Your task to perform on an android device: toggle pop-ups in chrome Image 0: 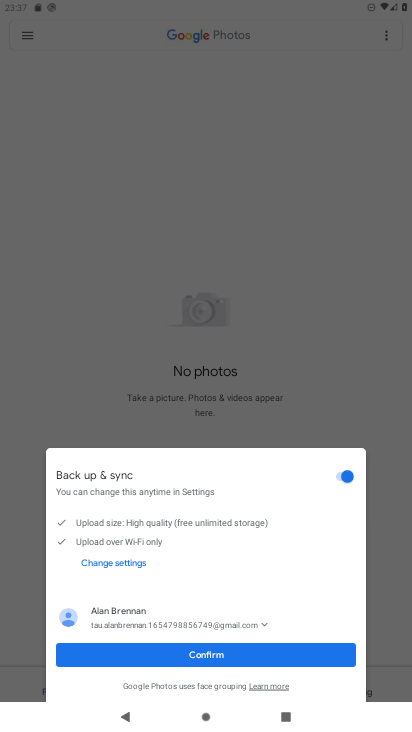
Step 0: press home button
Your task to perform on an android device: toggle pop-ups in chrome Image 1: 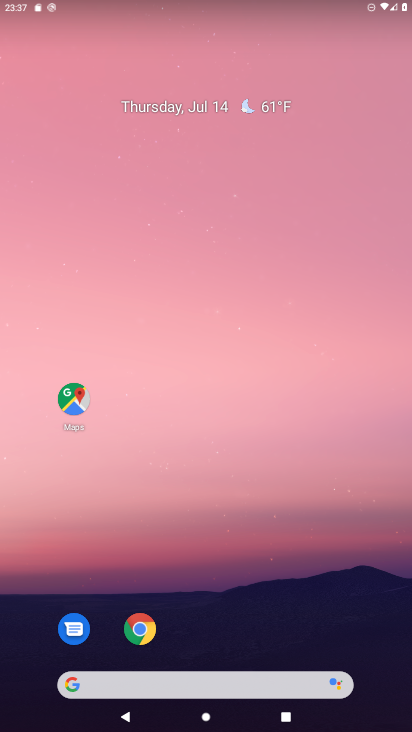
Step 1: click (125, 637)
Your task to perform on an android device: toggle pop-ups in chrome Image 2: 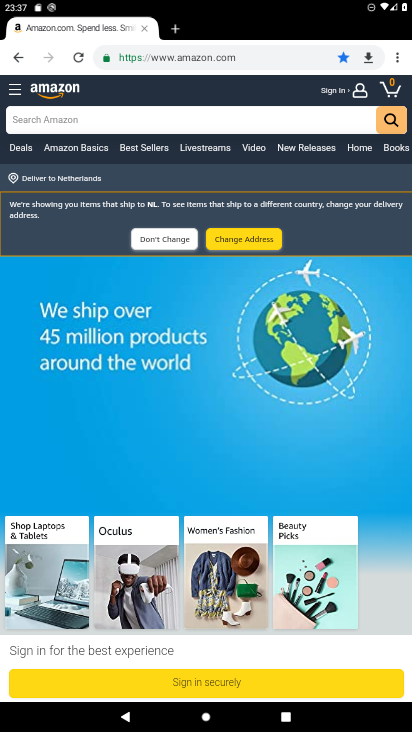
Step 2: click (390, 63)
Your task to perform on an android device: toggle pop-ups in chrome Image 3: 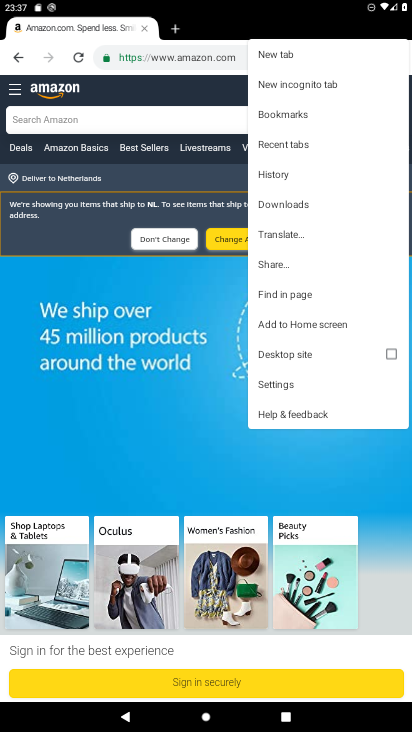
Step 3: click (298, 387)
Your task to perform on an android device: toggle pop-ups in chrome Image 4: 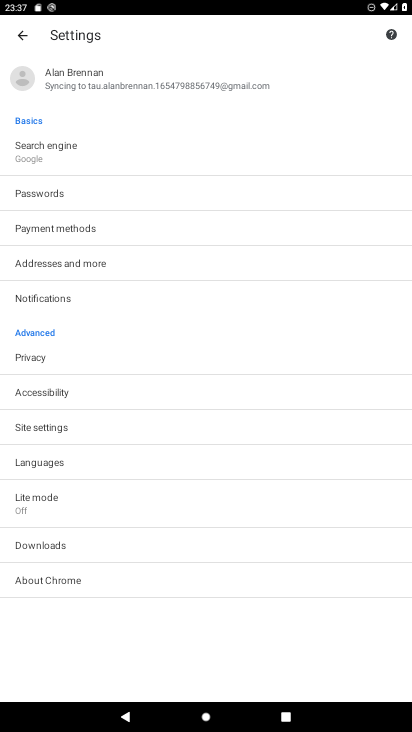
Step 4: click (146, 429)
Your task to perform on an android device: toggle pop-ups in chrome Image 5: 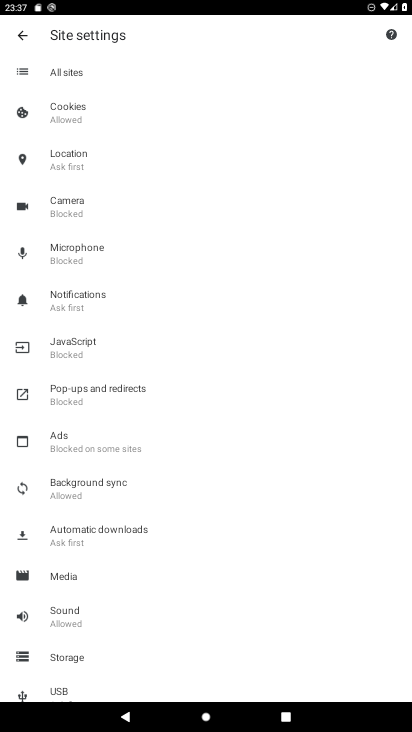
Step 5: click (153, 414)
Your task to perform on an android device: toggle pop-ups in chrome Image 6: 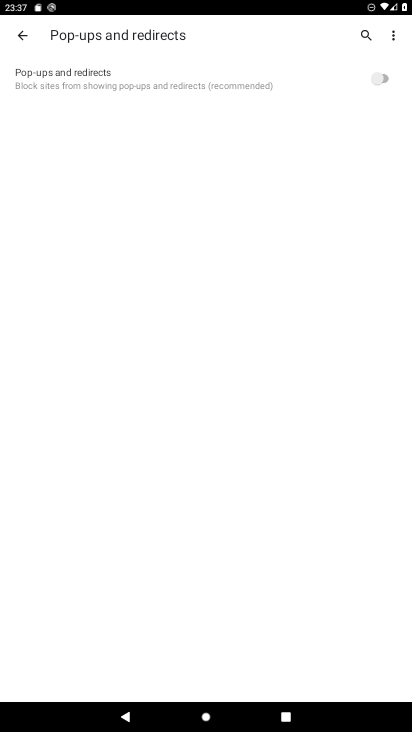
Step 6: click (380, 83)
Your task to perform on an android device: toggle pop-ups in chrome Image 7: 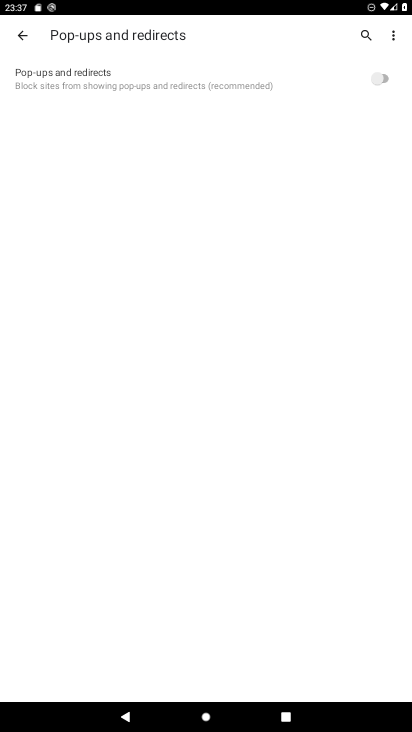
Step 7: click (380, 83)
Your task to perform on an android device: toggle pop-ups in chrome Image 8: 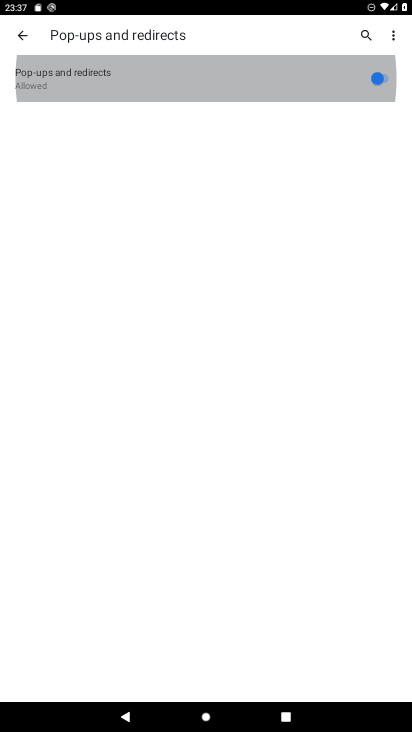
Step 8: click (380, 83)
Your task to perform on an android device: toggle pop-ups in chrome Image 9: 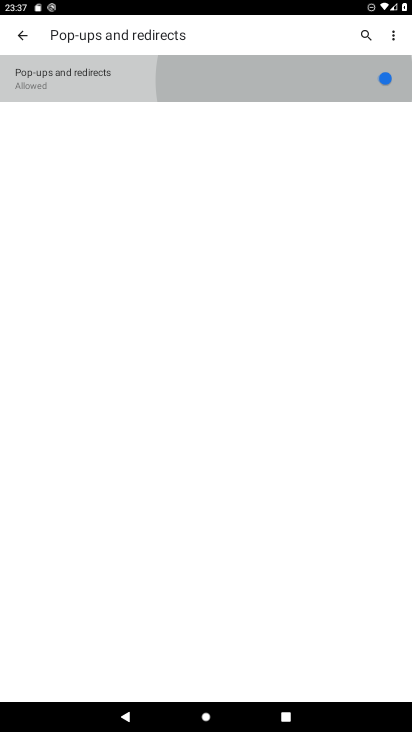
Step 9: click (380, 83)
Your task to perform on an android device: toggle pop-ups in chrome Image 10: 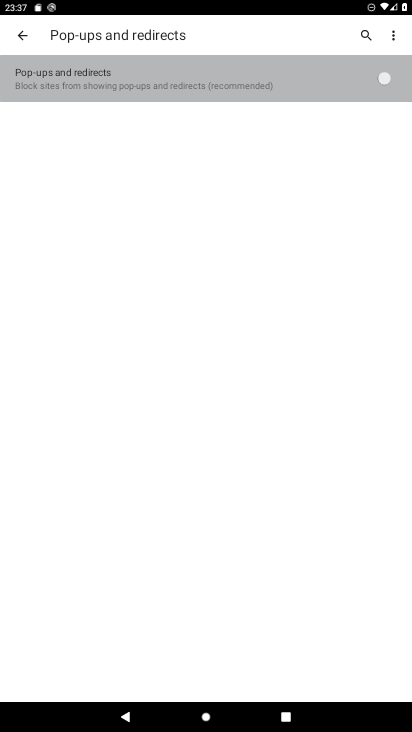
Step 10: click (380, 83)
Your task to perform on an android device: toggle pop-ups in chrome Image 11: 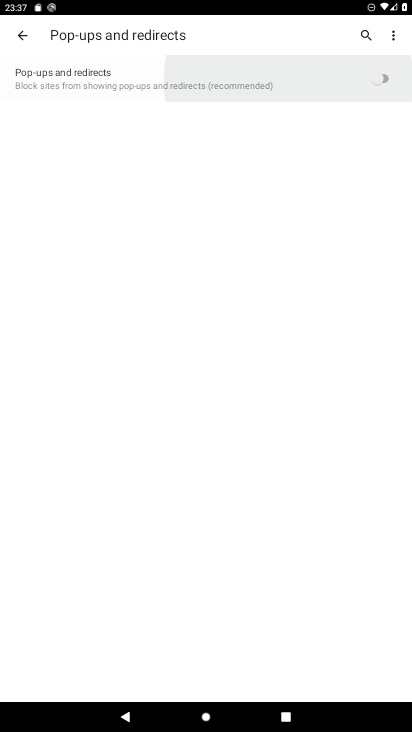
Step 11: click (380, 83)
Your task to perform on an android device: toggle pop-ups in chrome Image 12: 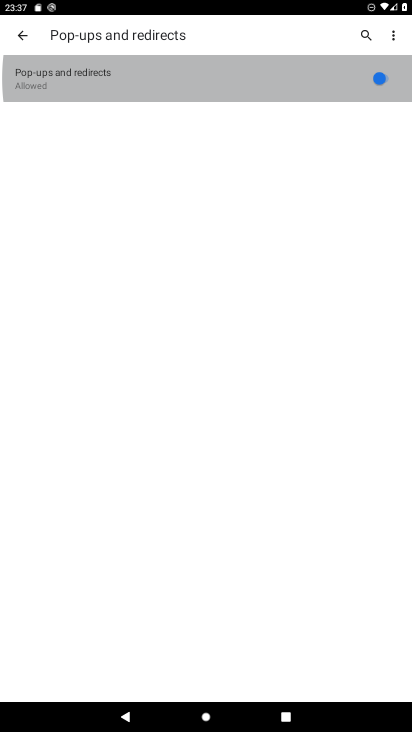
Step 12: click (380, 83)
Your task to perform on an android device: toggle pop-ups in chrome Image 13: 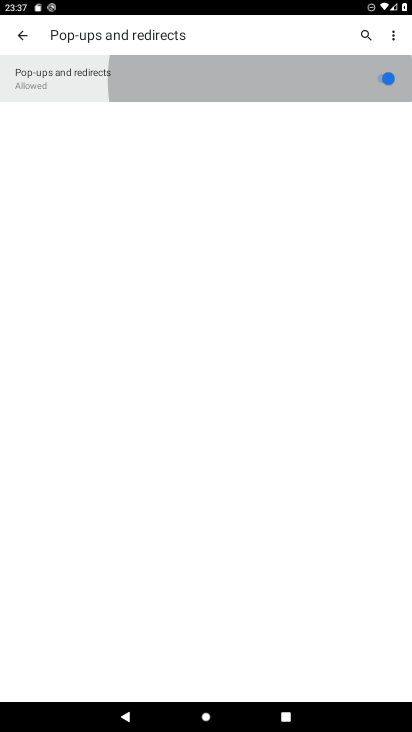
Step 13: click (380, 83)
Your task to perform on an android device: toggle pop-ups in chrome Image 14: 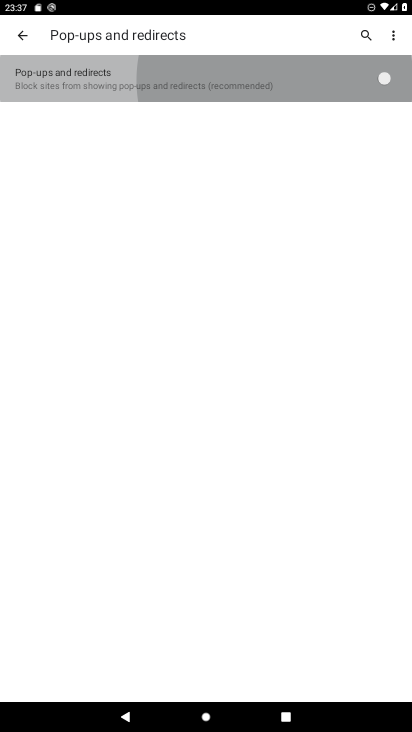
Step 14: click (380, 83)
Your task to perform on an android device: toggle pop-ups in chrome Image 15: 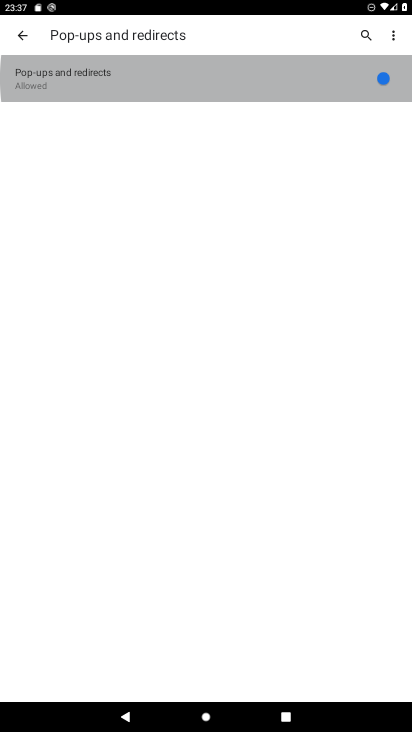
Step 15: click (380, 83)
Your task to perform on an android device: toggle pop-ups in chrome Image 16: 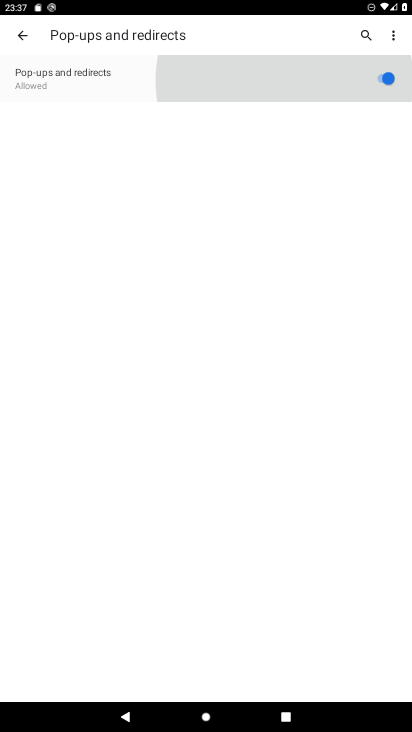
Step 16: click (380, 83)
Your task to perform on an android device: toggle pop-ups in chrome Image 17: 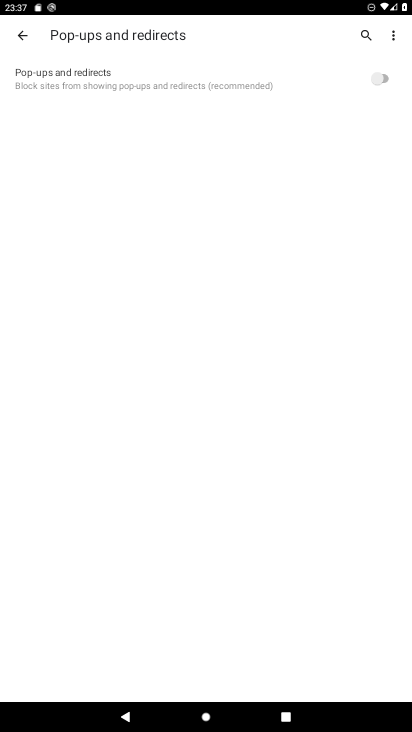
Step 17: task complete